Your task to perform on an android device: set default search engine in the chrome app Image 0: 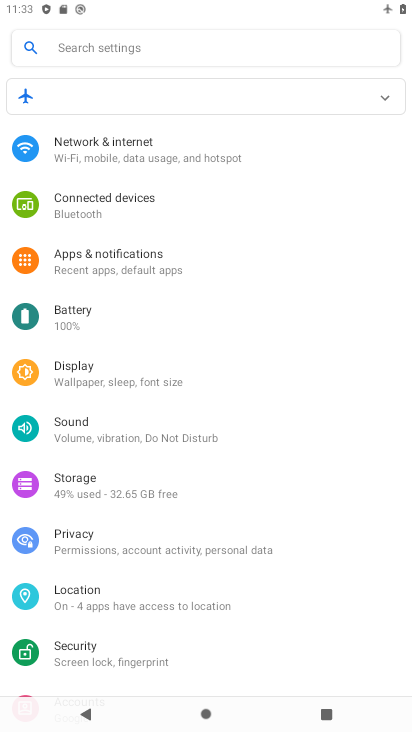
Step 0: press home button
Your task to perform on an android device: set default search engine in the chrome app Image 1: 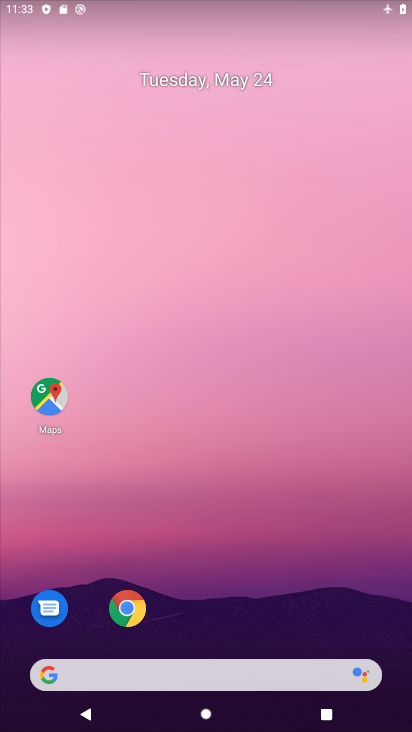
Step 1: click (136, 609)
Your task to perform on an android device: set default search engine in the chrome app Image 2: 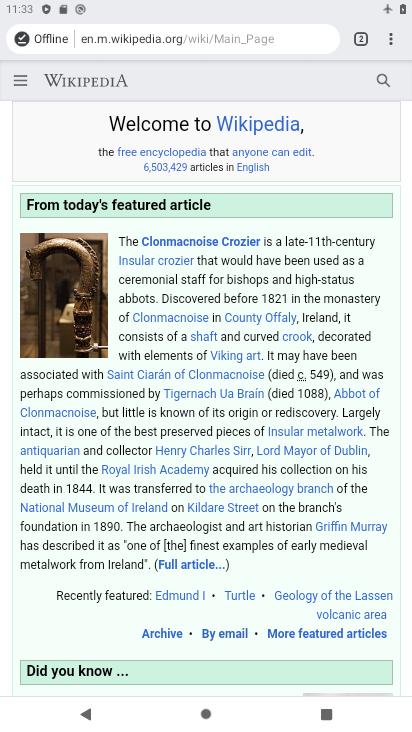
Step 2: click (390, 46)
Your task to perform on an android device: set default search engine in the chrome app Image 3: 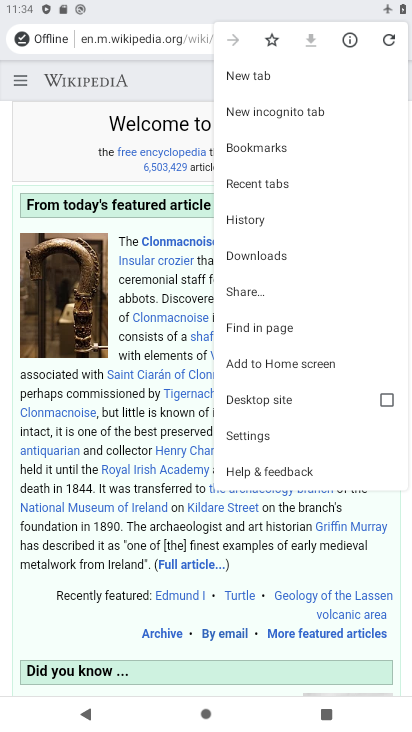
Step 3: click (240, 422)
Your task to perform on an android device: set default search engine in the chrome app Image 4: 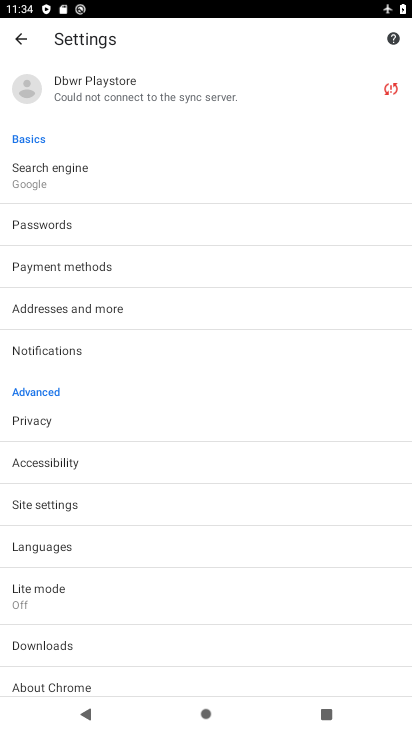
Step 4: click (79, 185)
Your task to perform on an android device: set default search engine in the chrome app Image 5: 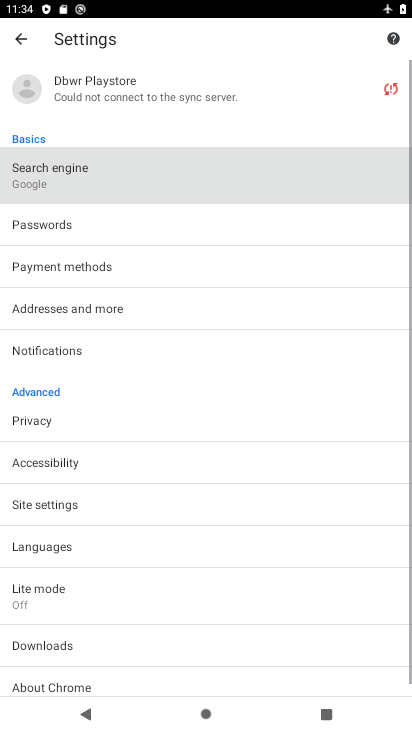
Step 5: click (79, 185)
Your task to perform on an android device: set default search engine in the chrome app Image 6: 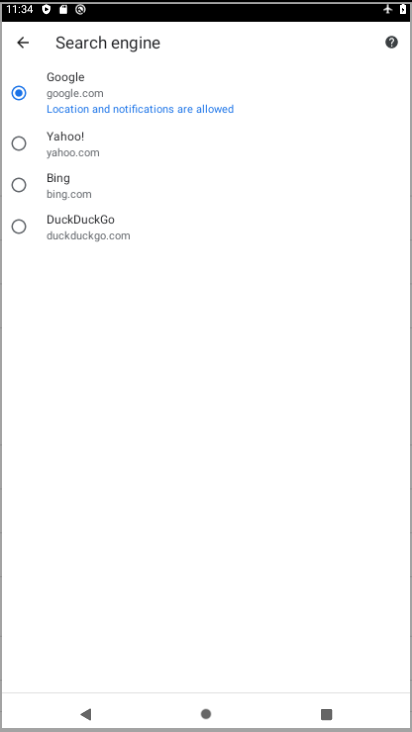
Step 6: click (79, 185)
Your task to perform on an android device: set default search engine in the chrome app Image 7: 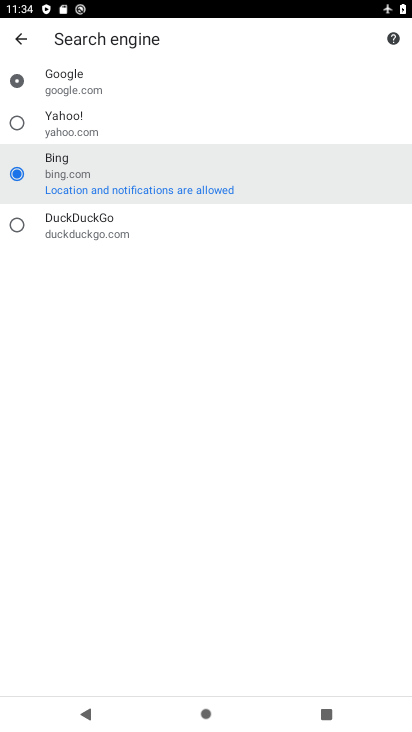
Step 7: click (79, 185)
Your task to perform on an android device: set default search engine in the chrome app Image 8: 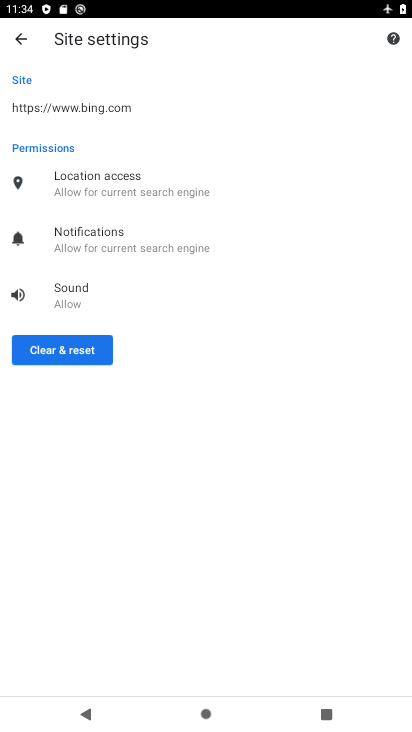
Step 8: task complete